Your task to perform on an android device: turn off notifications in google photos Image 0: 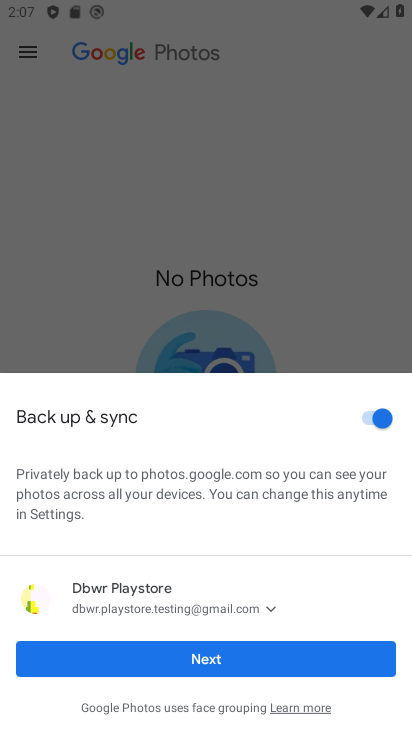
Step 0: press home button
Your task to perform on an android device: turn off notifications in google photos Image 1: 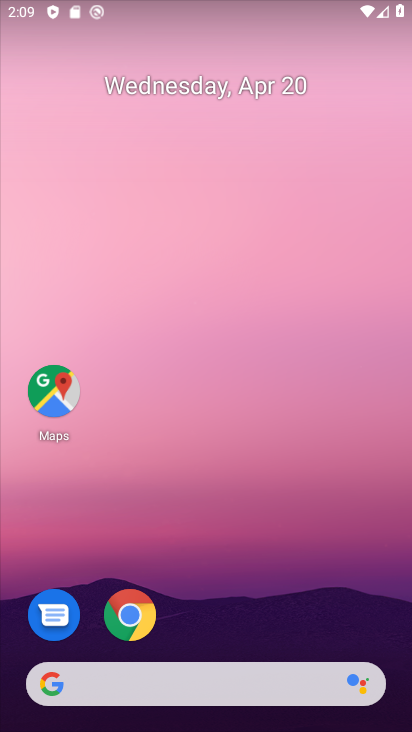
Step 1: drag from (264, 576) to (255, 37)
Your task to perform on an android device: turn off notifications in google photos Image 2: 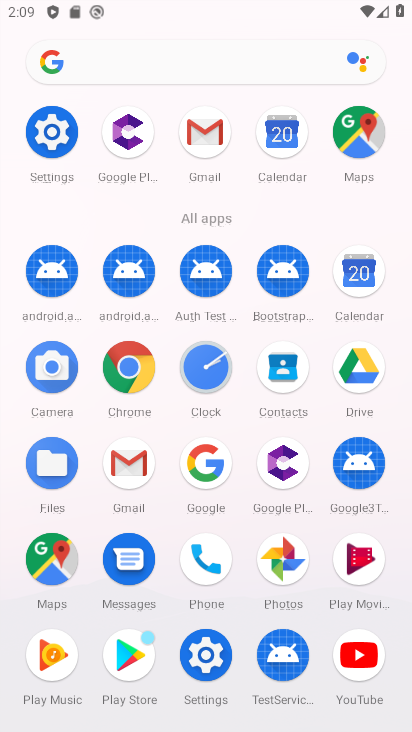
Step 2: click (290, 556)
Your task to perform on an android device: turn off notifications in google photos Image 3: 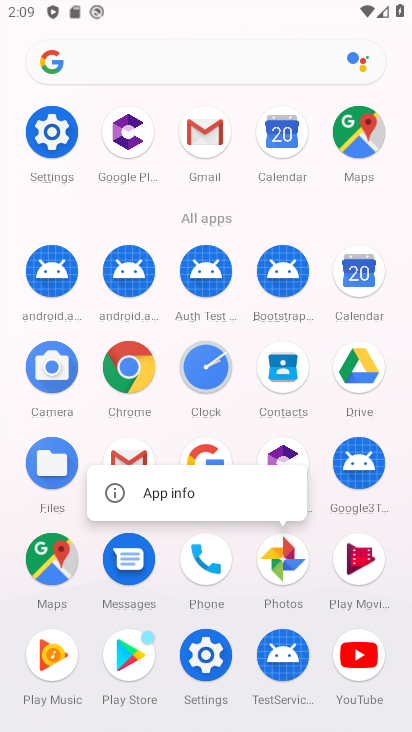
Step 3: click (204, 494)
Your task to perform on an android device: turn off notifications in google photos Image 4: 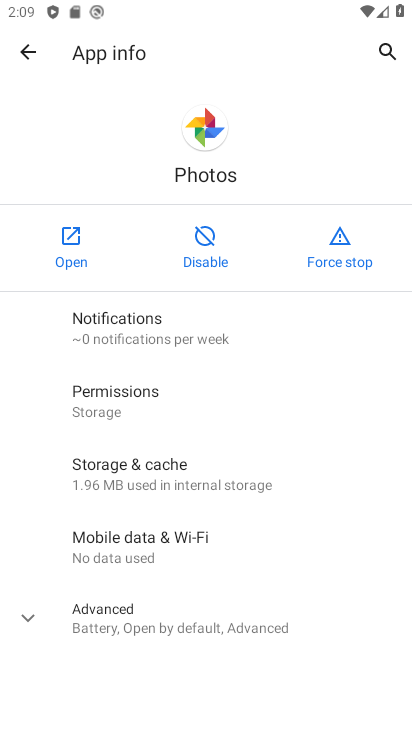
Step 4: click (163, 324)
Your task to perform on an android device: turn off notifications in google photos Image 5: 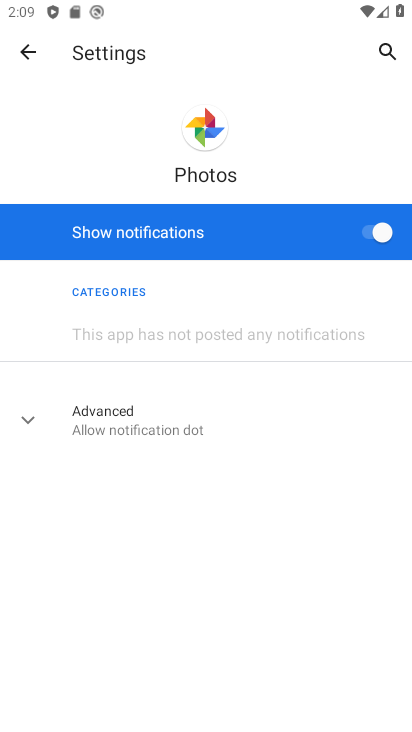
Step 5: click (374, 241)
Your task to perform on an android device: turn off notifications in google photos Image 6: 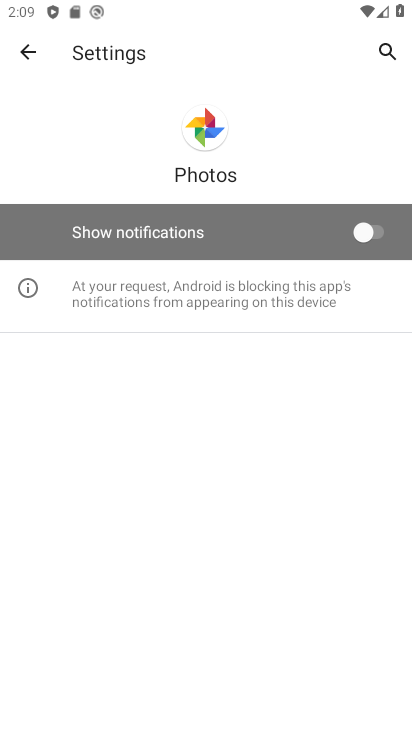
Step 6: task complete